Your task to perform on an android device: turn on notifications settings in the gmail app Image 0: 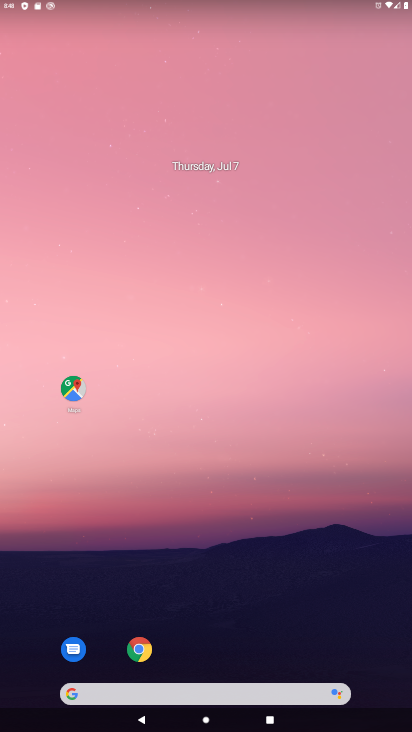
Step 0: drag from (268, 671) to (231, 162)
Your task to perform on an android device: turn on notifications settings in the gmail app Image 1: 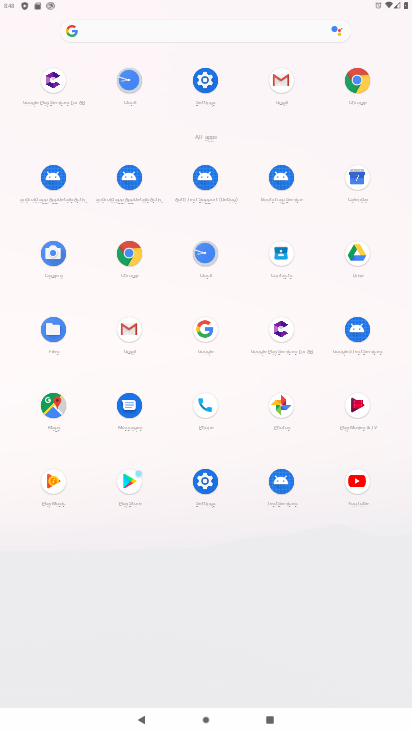
Step 1: click (127, 331)
Your task to perform on an android device: turn on notifications settings in the gmail app Image 2: 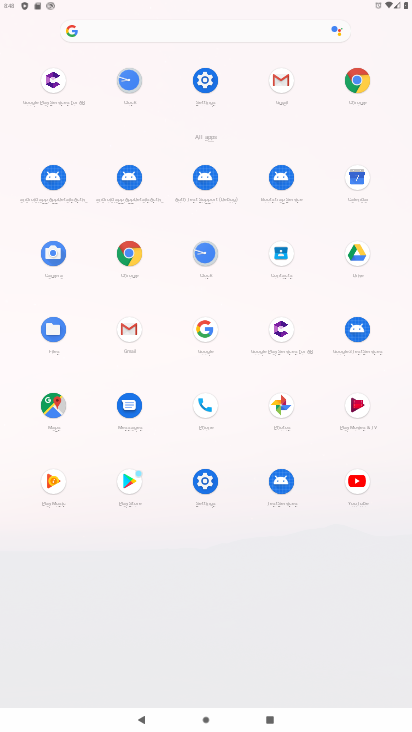
Step 2: click (126, 329)
Your task to perform on an android device: turn on notifications settings in the gmail app Image 3: 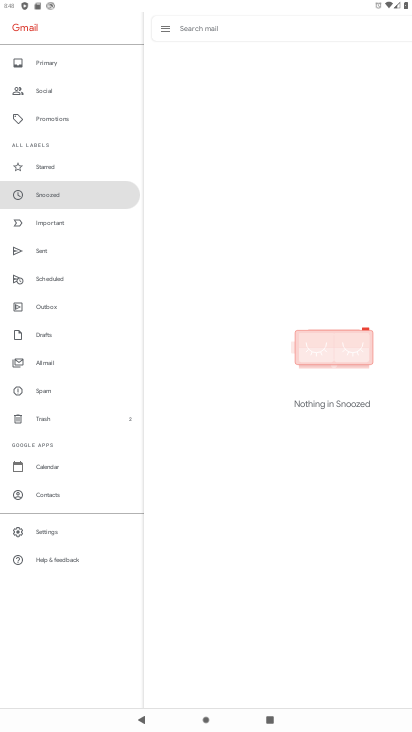
Step 3: click (55, 531)
Your task to perform on an android device: turn on notifications settings in the gmail app Image 4: 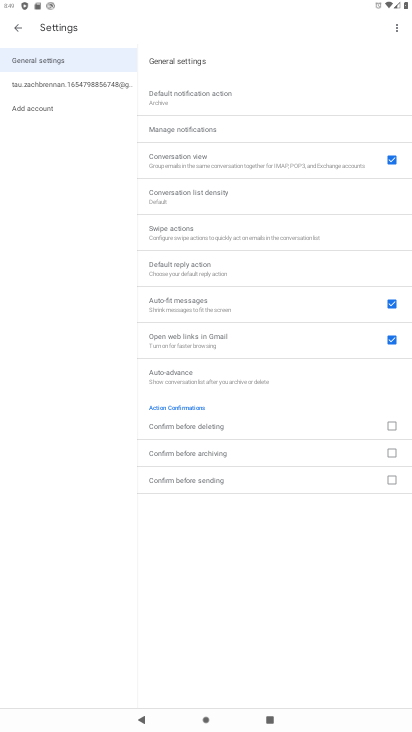
Step 4: click (93, 81)
Your task to perform on an android device: turn on notifications settings in the gmail app Image 5: 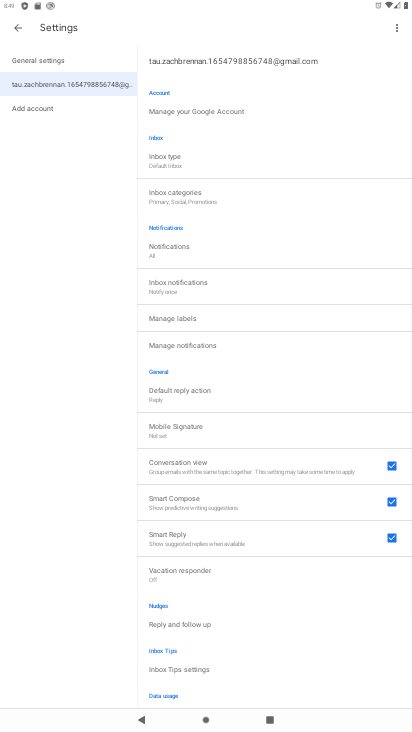
Step 5: click (209, 339)
Your task to perform on an android device: turn on notifications settings in the gmail app Image 6: 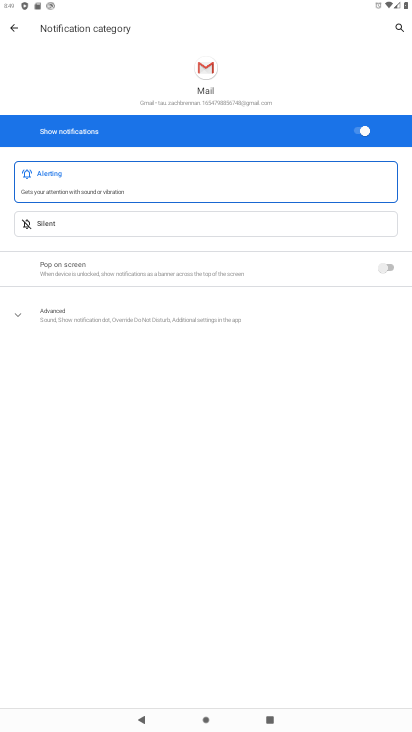
Step 6: task complete